Your task to perform on an android device: Add energizer triple a to the cart on newegg Image 0: 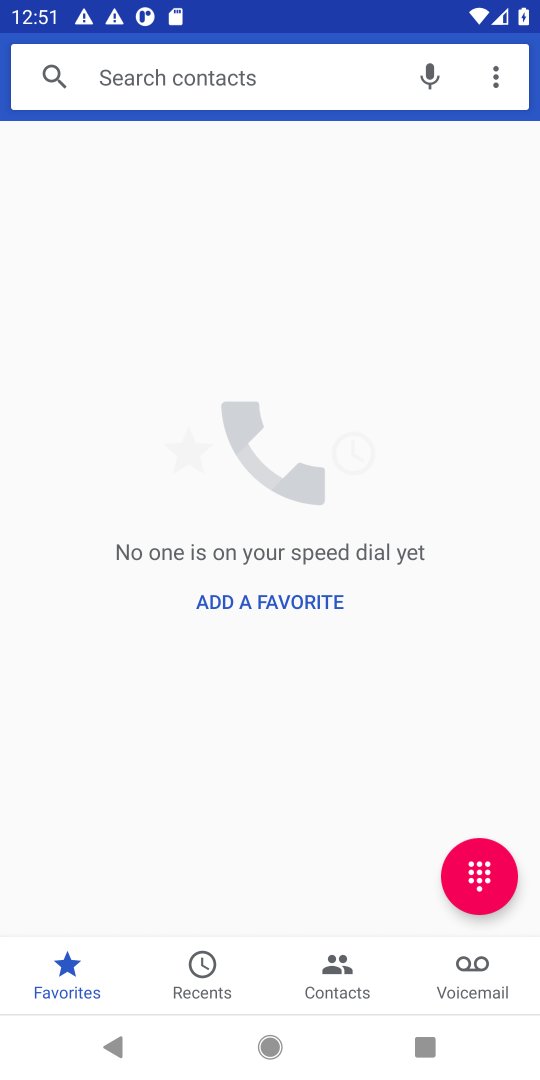
Step 0: press home button
Your task to perform on an android device: Add energizer triple a to the cart on newegg Image 1: 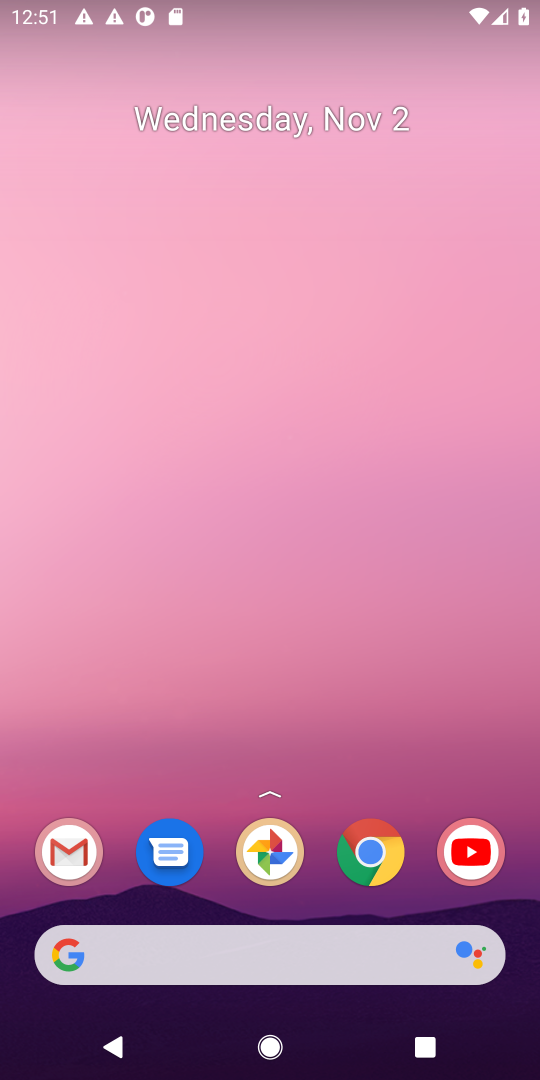
Step 1: click (59, 944)
Your task to perform on an android device: Add energizer triple a to the cart on newegg Image 2: 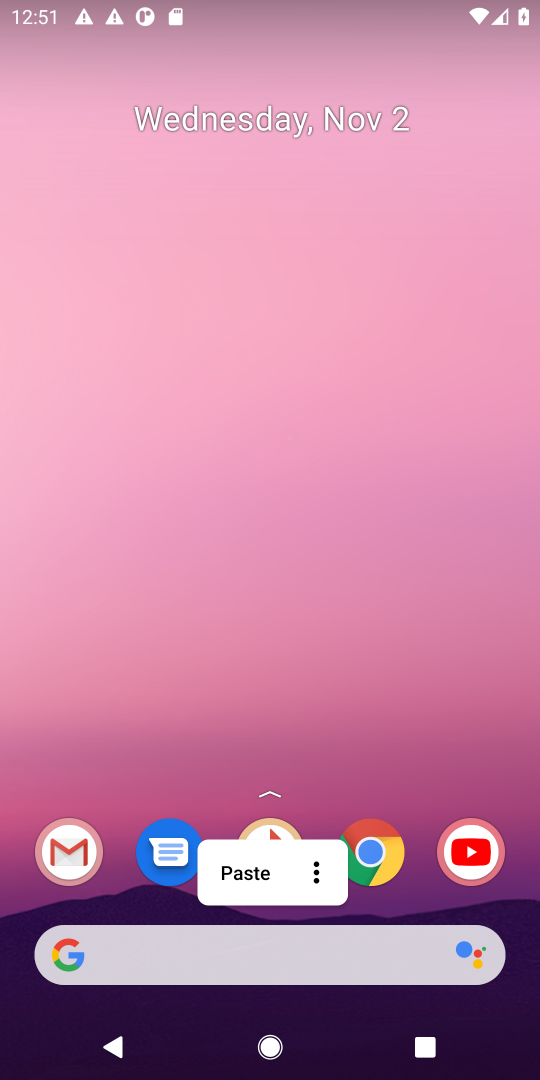
Step 2: click (70, 952)
Your task to perform on an android device: Add energizer triple a to the cart on newegg Image 3: 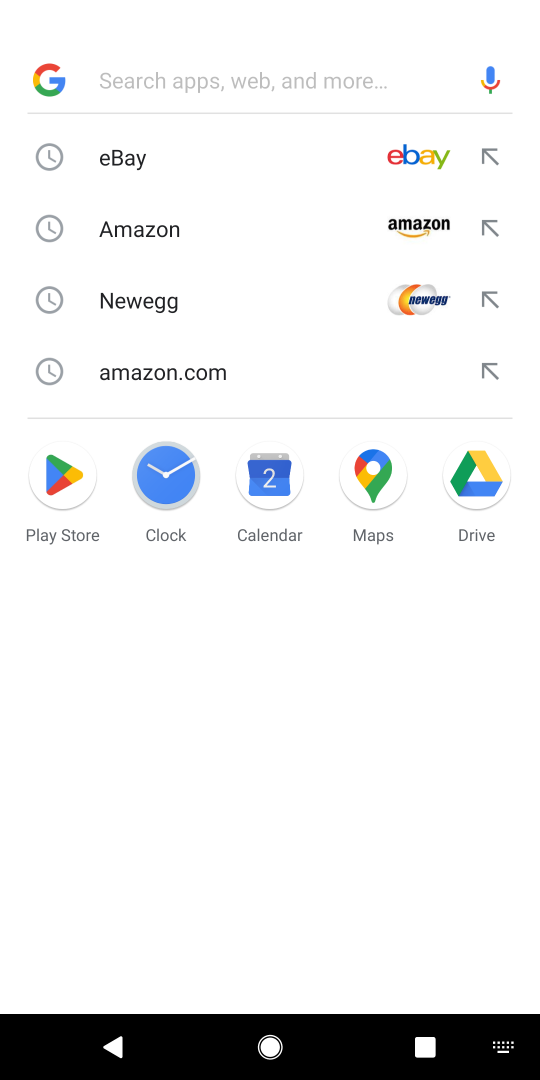
Step 3: click (146, 305)
Your task to perform on an android device: Add energizer triple a to the cart on newegg Image 4: 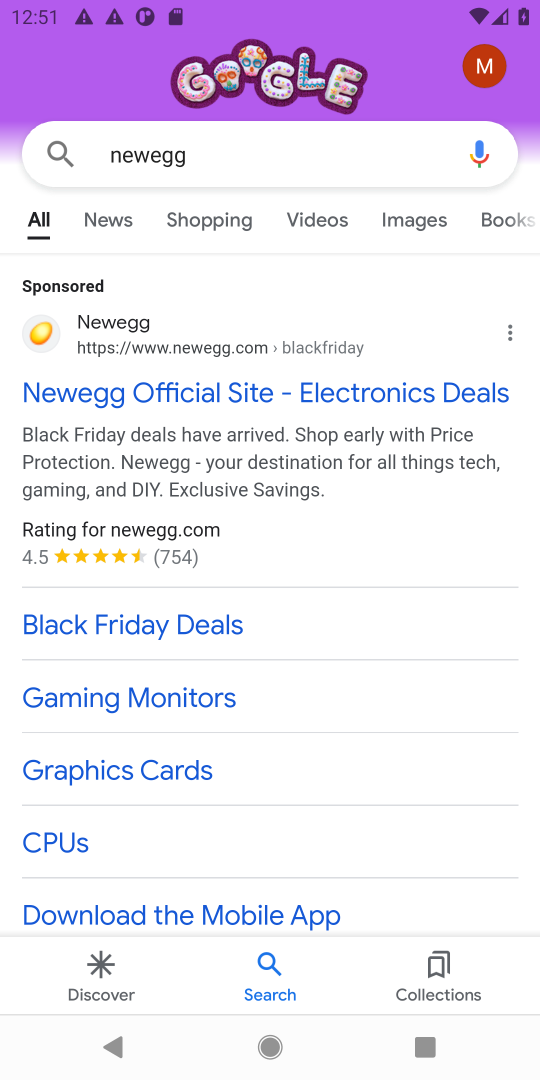
Step 4: drag from (321, 847) to (315, 341)
Your task to perform on an android device: Add energizer triple a to the cart on newegg Image 5: 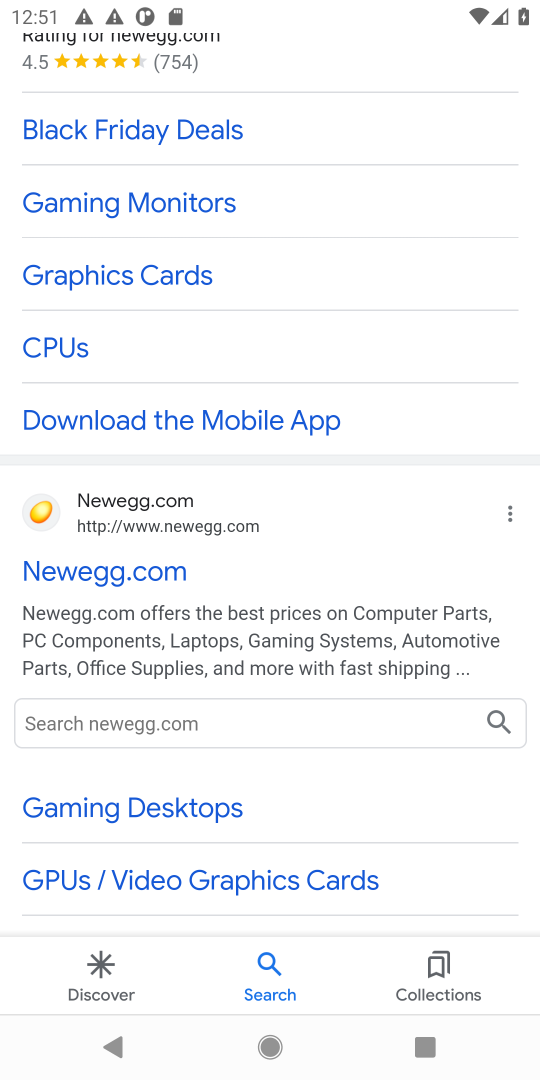
Step 5: click (111, 575)
Your task to perform on an android device: Add energizer triple a to the cart on newegg Image 6: 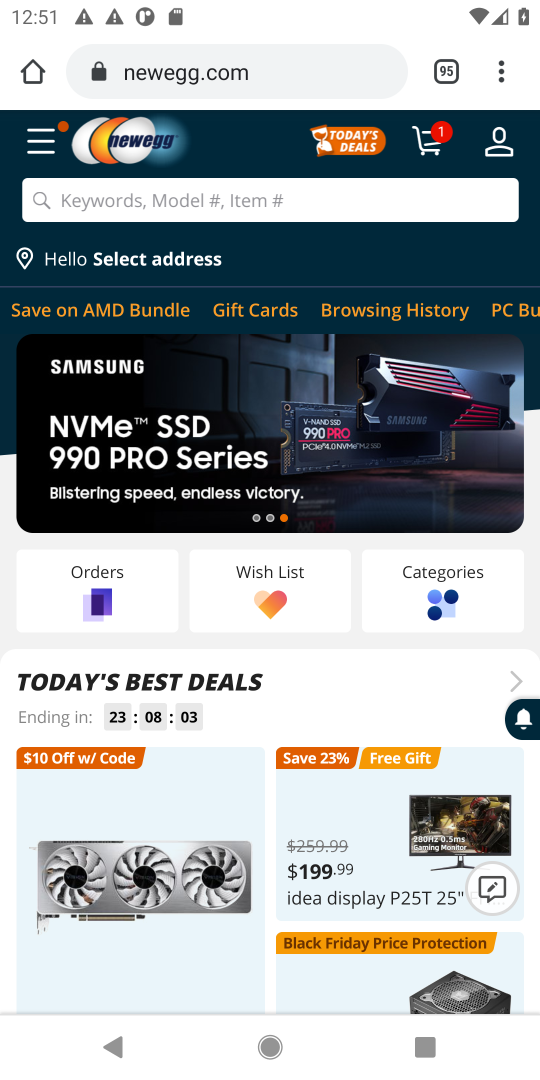
Step 6: click (105, 202)
Your task to perform on an android device: Add energizer triple a to the cart on newegg Image 7: 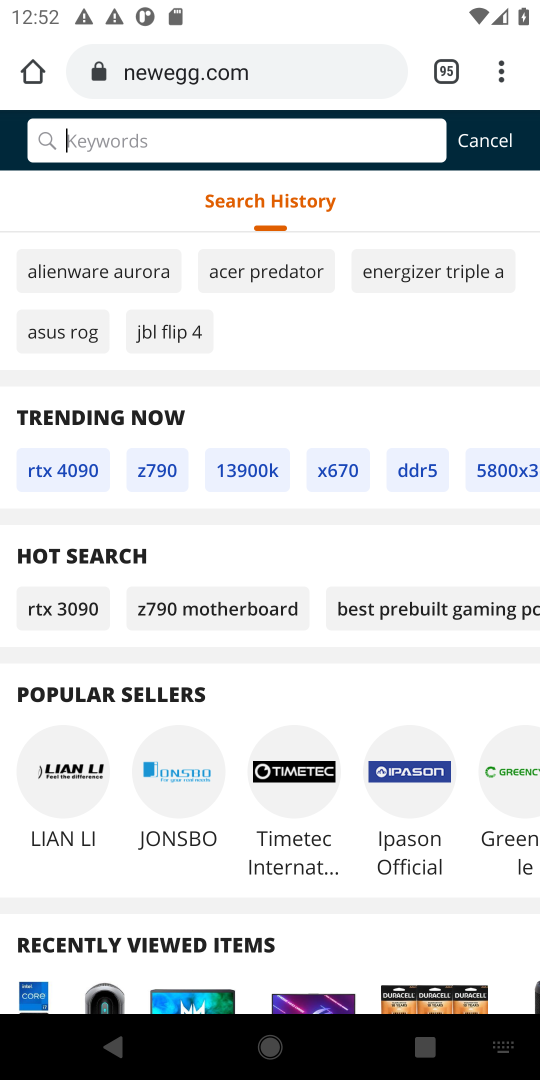
Step 7: type "newegg"
Your task to perform on an android device: Add energizer triple a to the cart on newegg Image 8: 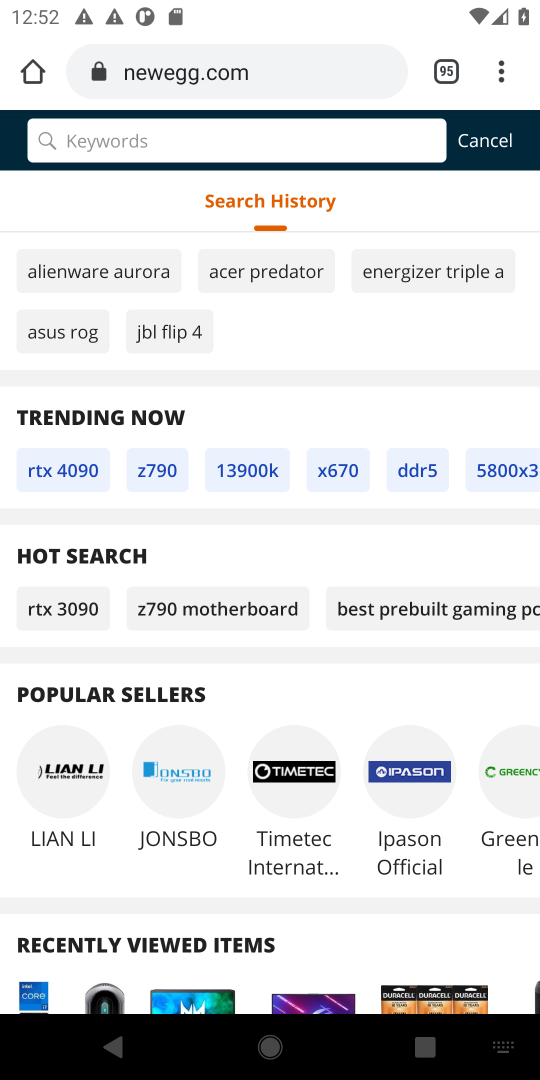
Step 8: click (122, 134)
Your task to perform on an android device: Add energizer triple a to the cart on newegg Image 9: 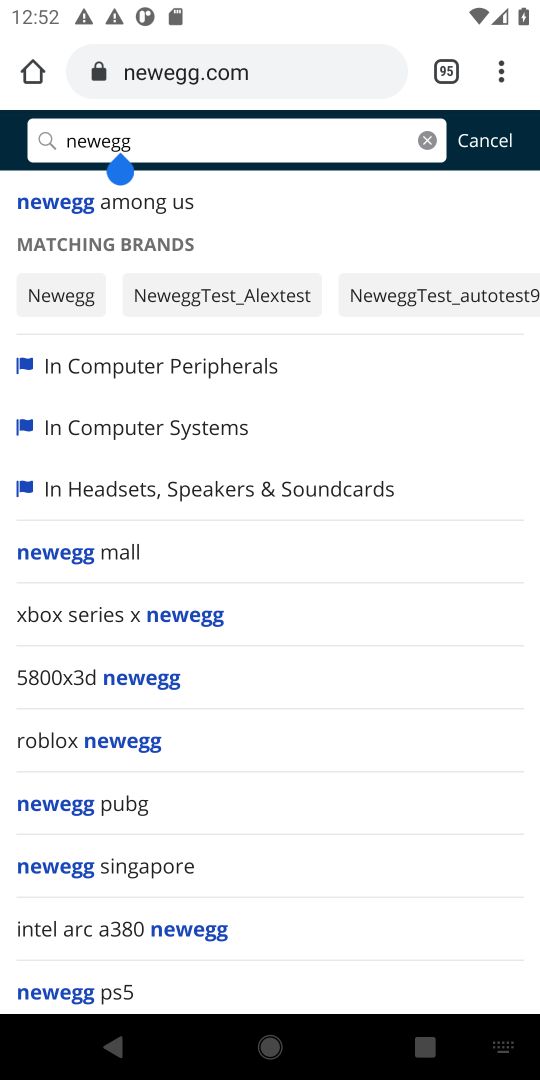
Step 9: press enter
Your task to perform on an android device: Add energizer triple a to the cart on newegg Image 10: 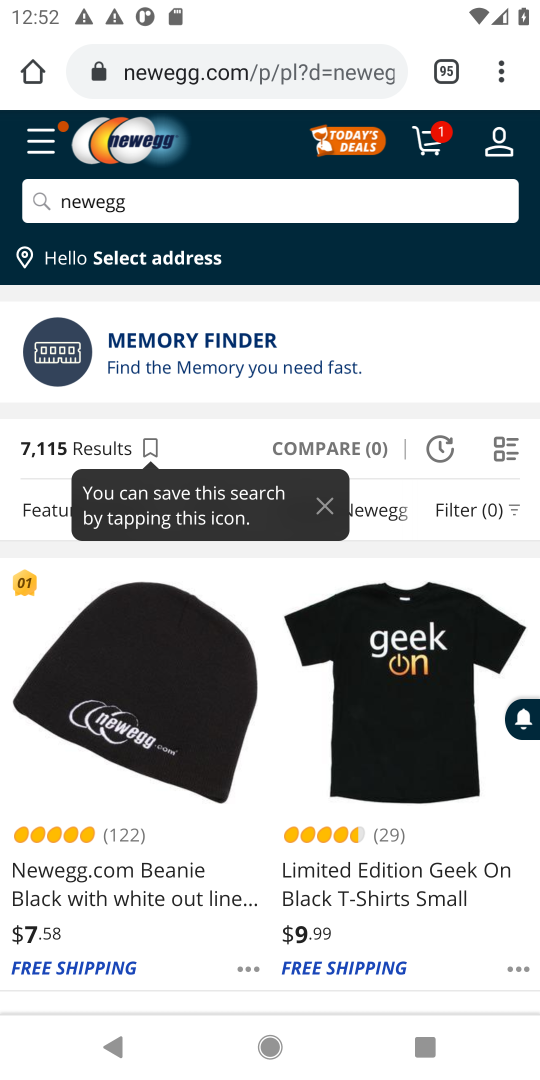
Step 10: click (111, 191)
Your task to perform on an android device: Add energizer triple a to the cart on newegg Image 11: 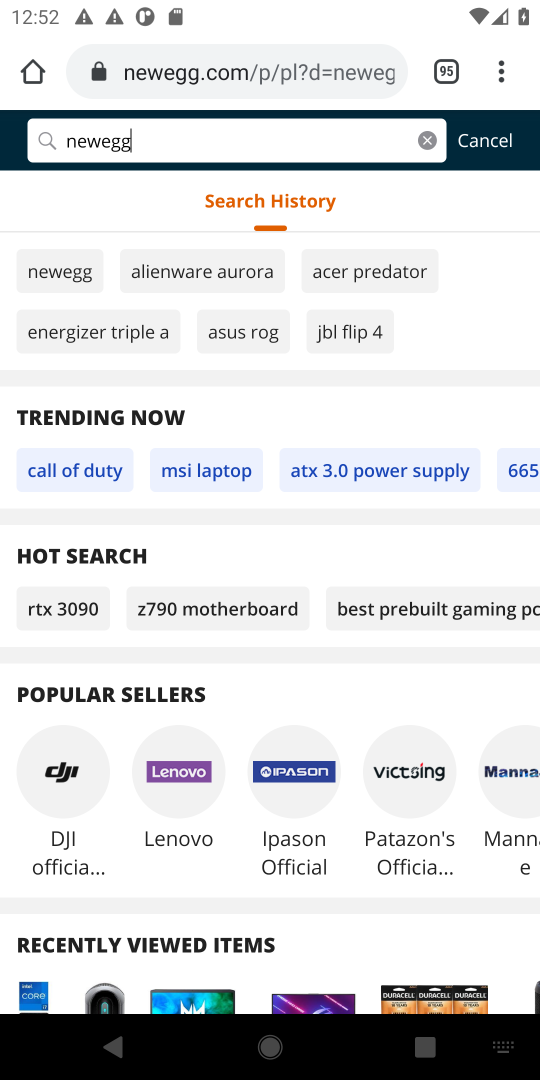
Step 11: click (432, 145)
Your task to perform on an android device: Add energizer triple a to the cart on newegg Image 12: 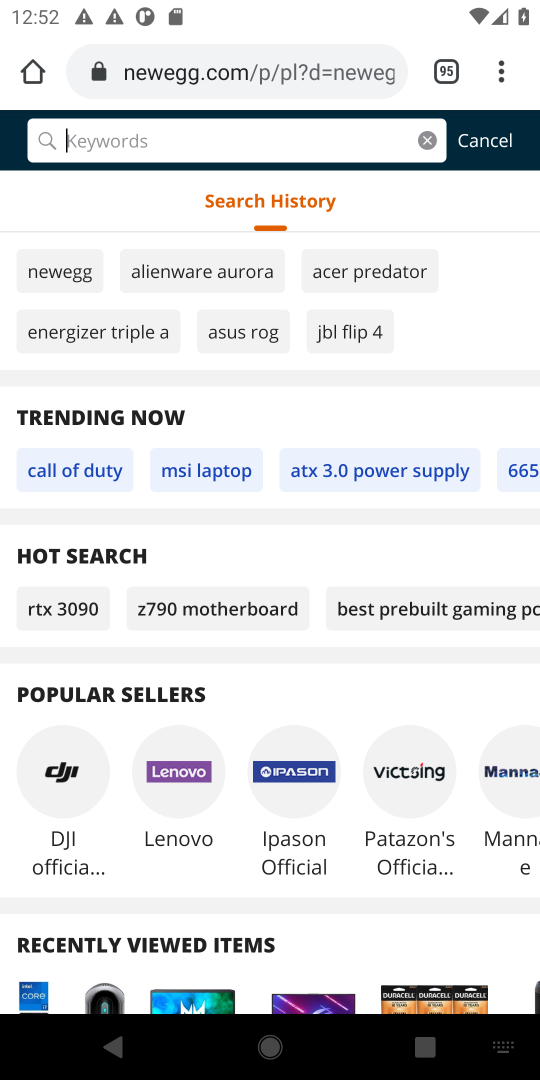
Step 12: type "energizer triple a"
Your task to perform on an android device: Add energizer triple a to the cart on newegg Image 13: 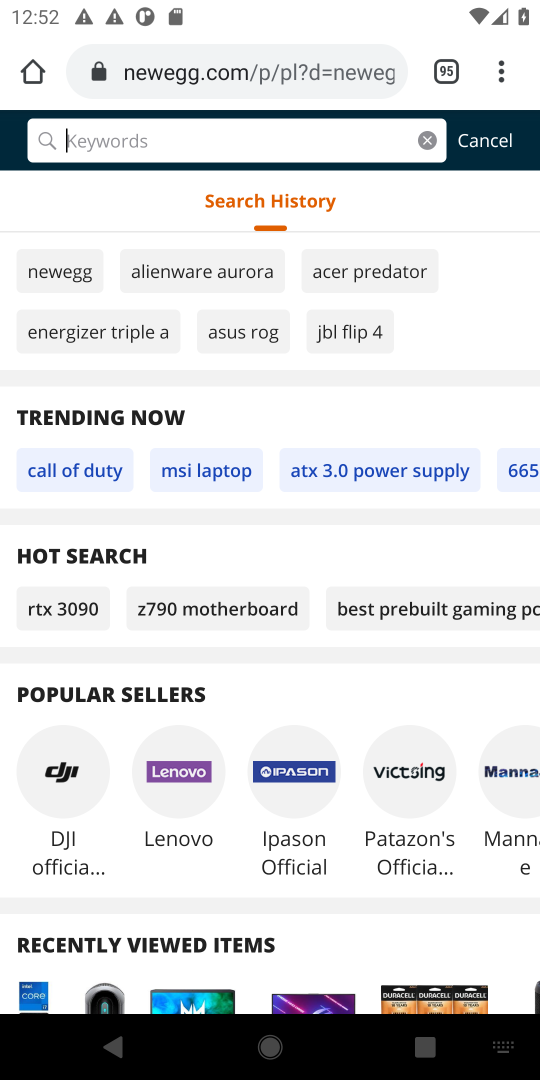
Step 13: click (92, 148)
Your task to perform on an android device: Add energizer triple a to the cart on newegg Image 14: 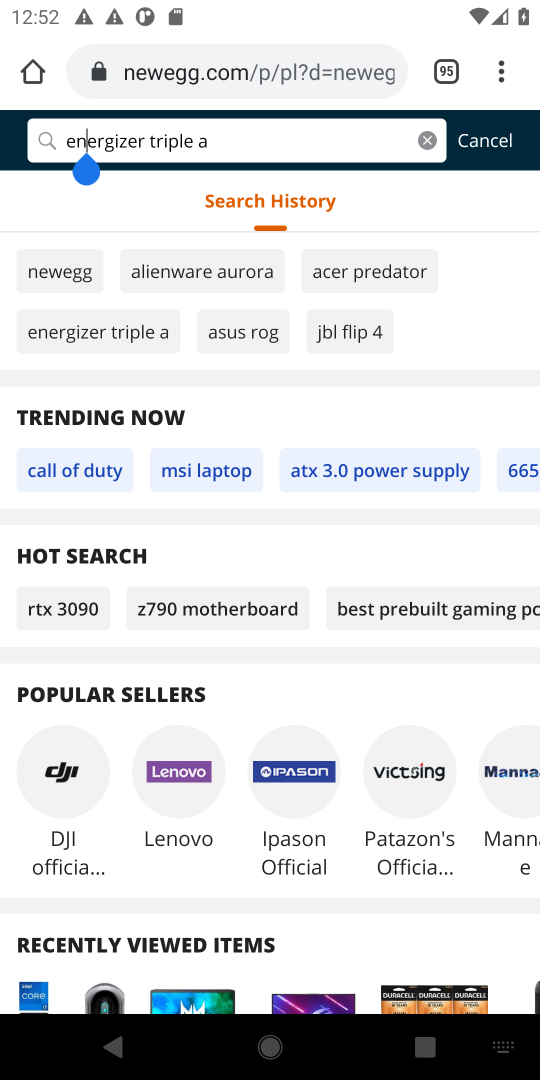
Step 14: press enter
Your task to perform on an android device: Add energizer triple a to the cart on newegg Image 15: 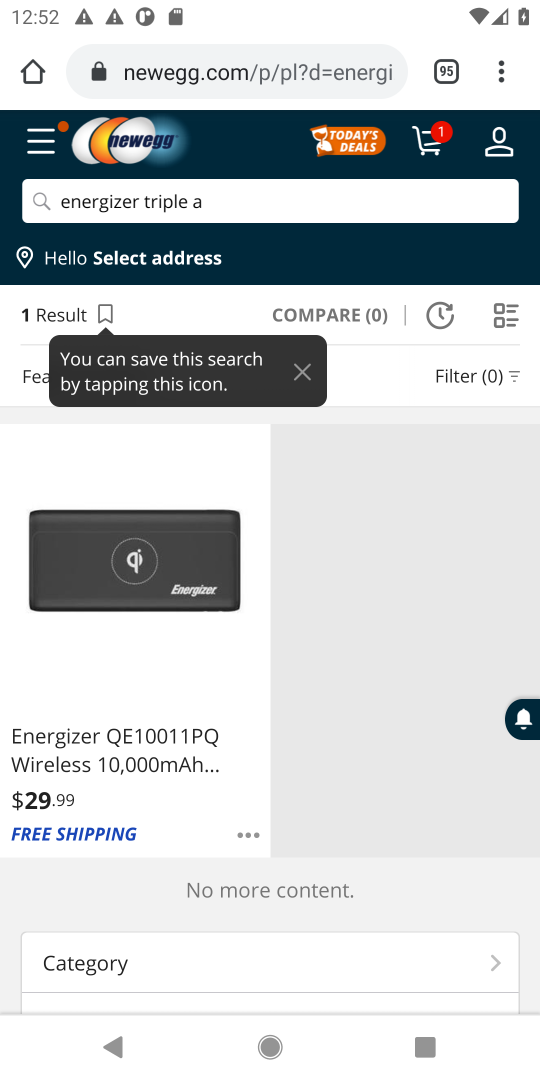
Step 15: task complete